Your task to perform on an android device: remove spam from my inbox in the gmail app Image 0: 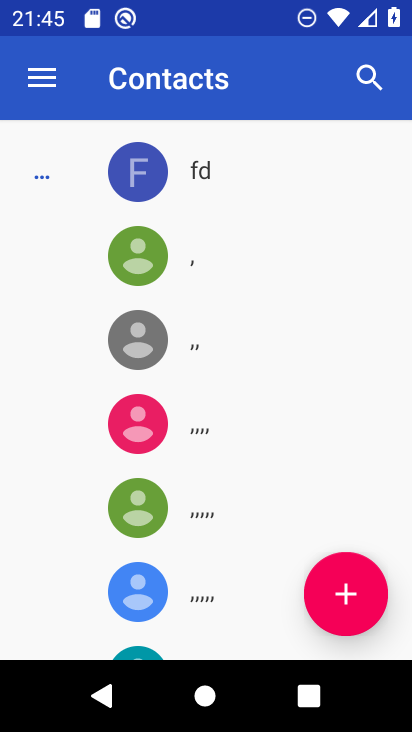
Step 0: press home button
Your task to perform on an android device: remove spam from my inbox in the gmail app Image 1: 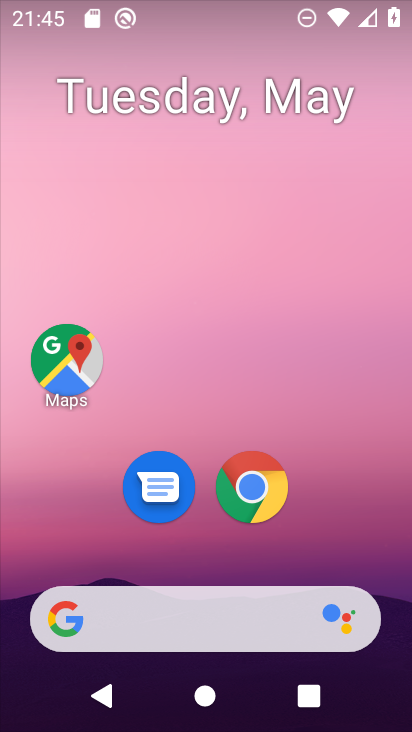
Step 1: drag from (157, 614) to (329, 156)
Your task to perform on an android device: remove spam from my inbox in the gmail app Image 2: 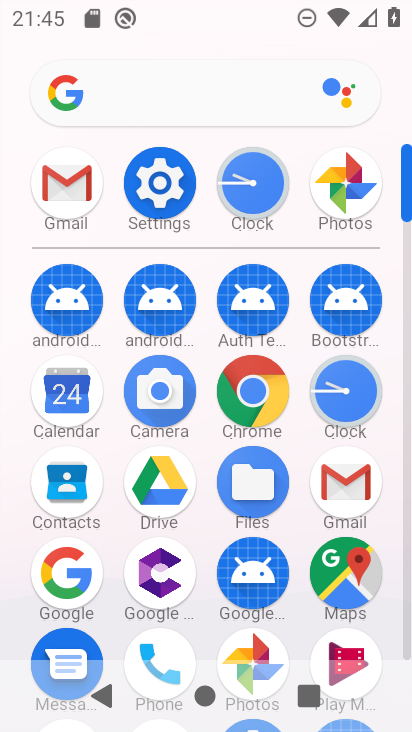
Step 2: click (70, 195)
Your task to perform on an android device: remove spam from my inbox in the gmail app Image 3: 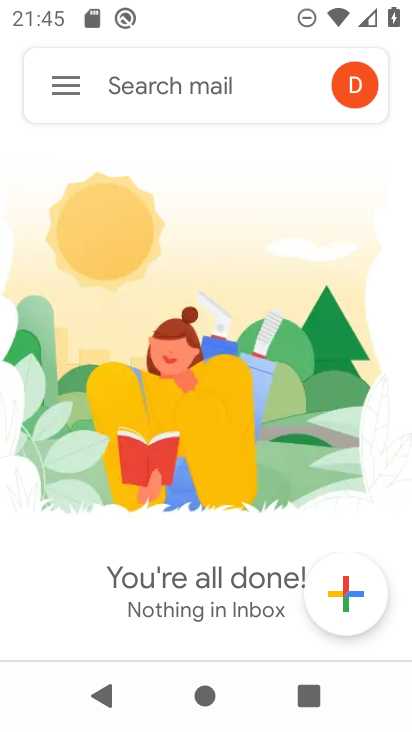
Step 3: click (60, 83)
Your task to perform on an android device: remove spam from my inbox in the gmail app Image 4: 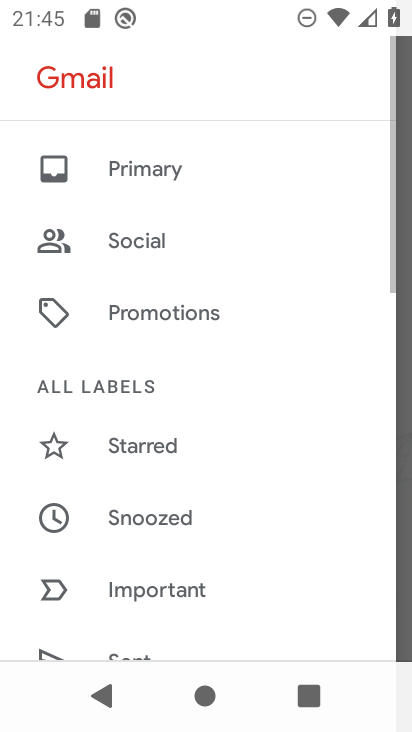
Step 4: drag from (237, 587) to (323, 275)
Your task to perform on an android device: remove spam from my inbox in the gmail app Image 5: 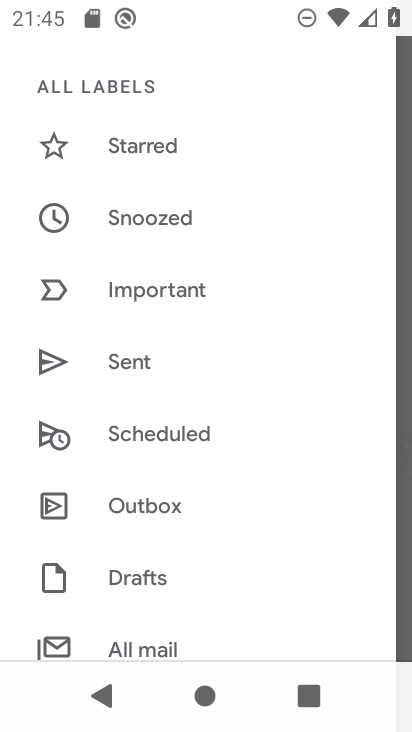
Step 5: drag from (204, 600) to (310, 241)
Your task to perform on an android device: remove spam from my inbox in the gmail app Image 6: 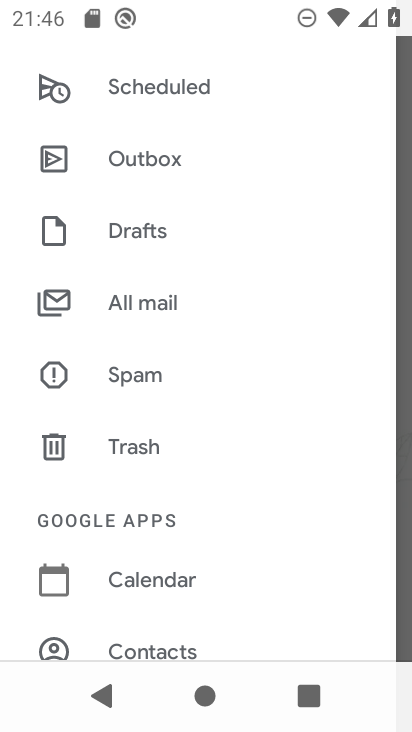
Step 6: click (133, 376)
Your task to perform on an android device: remove spam from my inbox in the gmail app Image 7: 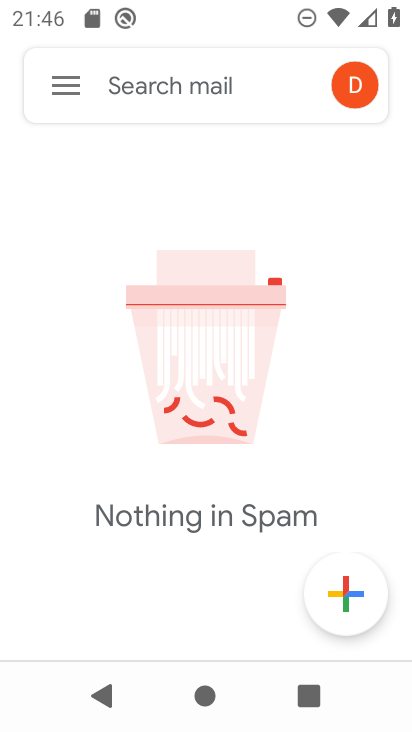
Step 7: task complete